Your task to perform on an android device: Do I have any events this weekend? Image 0: 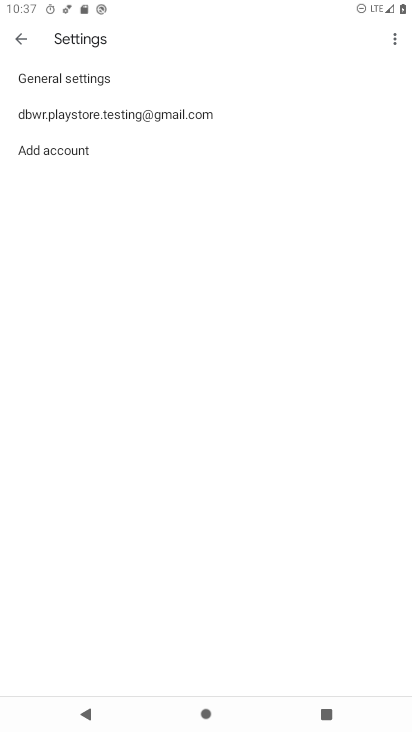
Step 0: press home button
Your task to perform on an android device: Do I have any events this weekend? Image 1: 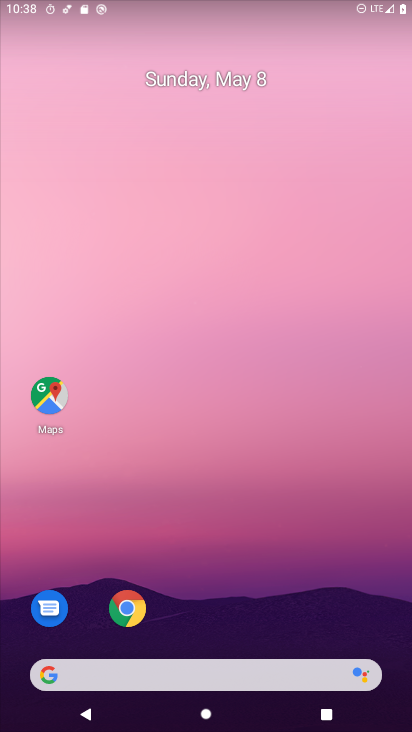
Step 1: drag from (264, 575) to (298, 242)
Your task to perform on an android device: Do I have any events this weekend? Image 2: 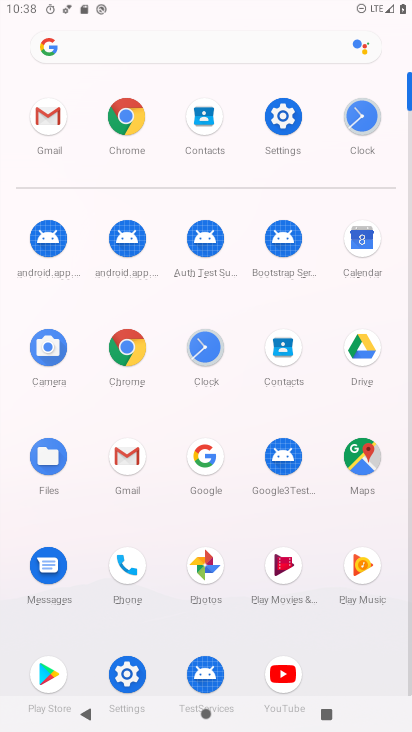
Step 2: click (352, 237)
Your task to perform on an android device: Do I have any events this weekend? Image 3: 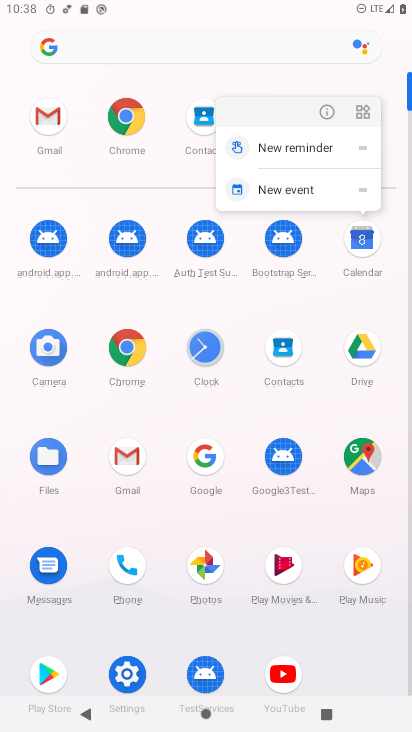
Step 3: click (324, 105)
Your task to perform on an android device: Do I have any events this weekend? Image 4: 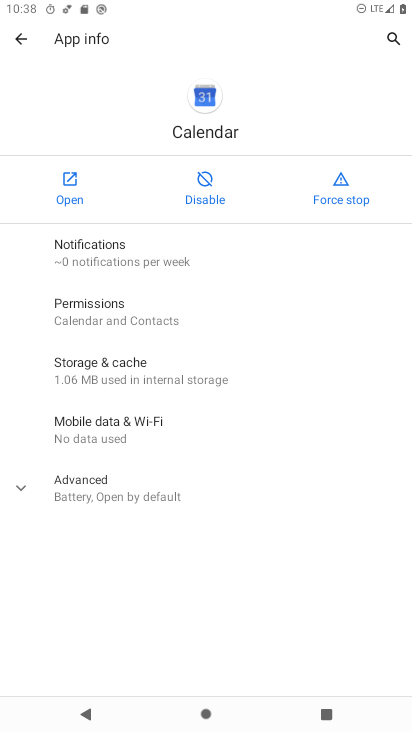
Step 4: click (64, 198)
Your task to perform on an android device: Do I have any events this weekend? Image 5: 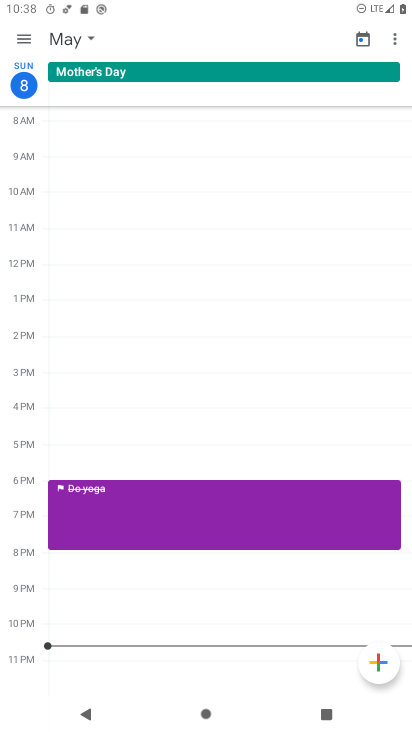
Step 5: click (88, 38)
Your task to perform on an android device: Do I have any events this weekend? Image 6: 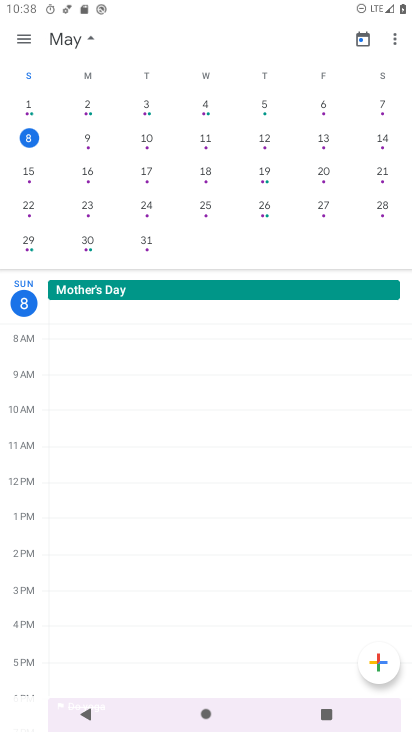
Step 6: click (378, 139)
Your task to perform on an android device: Do I have any events this weekend? Image 7: 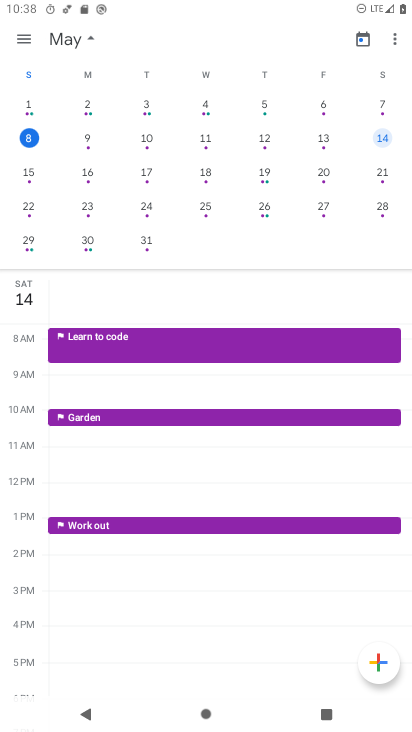
Step 7: click (19, 170)
Your task to perform on an android device: Do I have any events this weekend? Image 8: 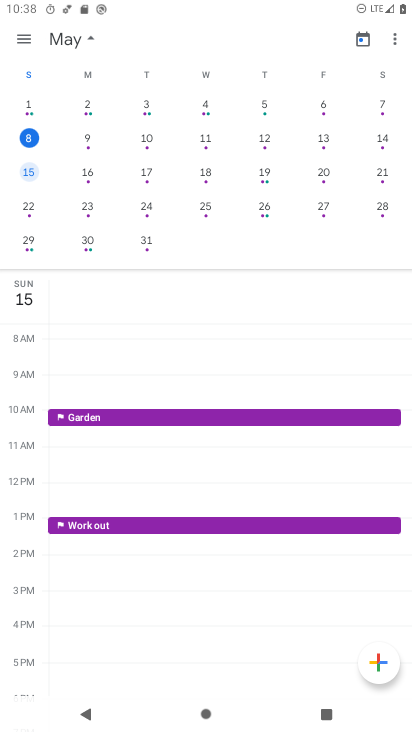
Step 8: task complete